Your task to perform on an android device: turn off data saver in the chrome app Image 0: 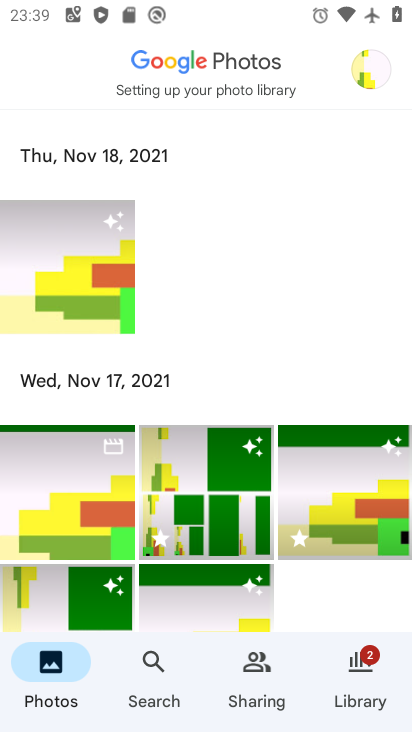
Step 0: press back button
Your task to perform on an android device: turn off data saver in the chrome app Image 1: 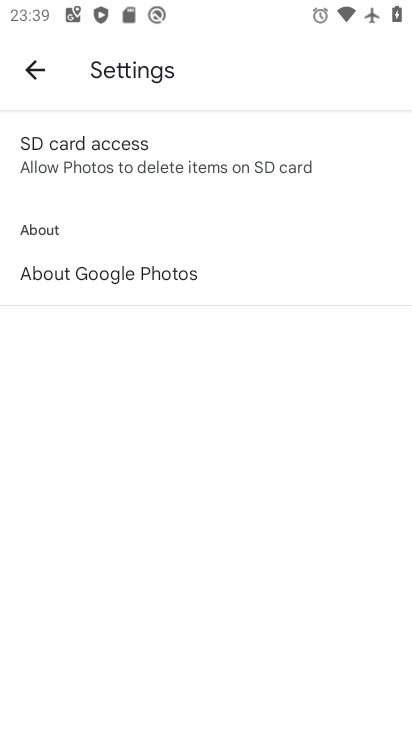
Step 1: press home button
Your task to perform on an android device: turn off data saver in the chrome app Image 2: 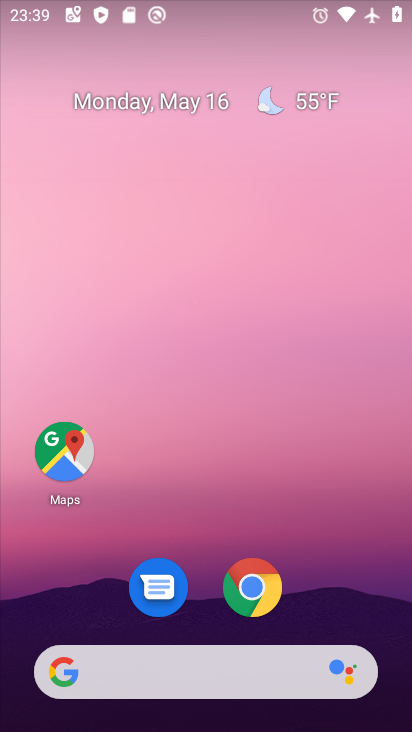
Step 2: drag from (322, 570) to (267, 64)
Your task to perform on an android device: turn off data saver in the chrome app Image 3: 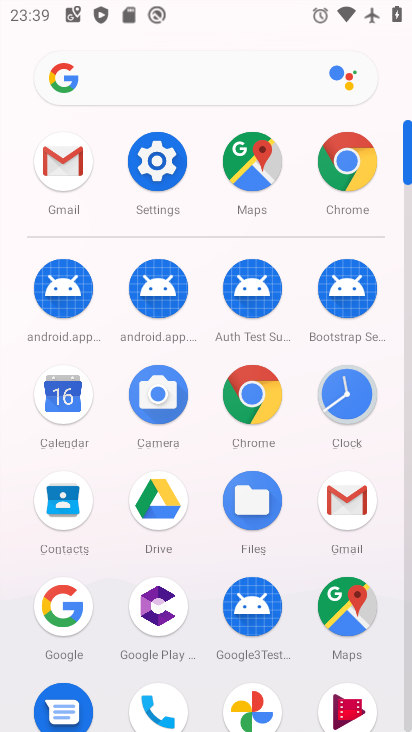
Step 3: drag from (5, 550) to (35, 240)
Your task to perform on an android device: turn off data saver in the chrome app Image 4: 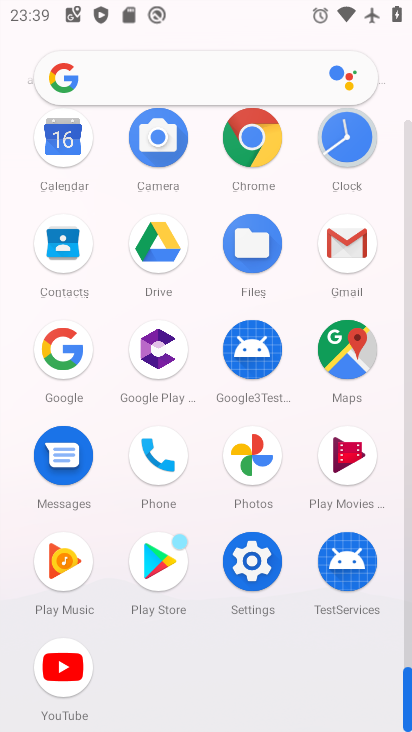
Step 4: click (249, 134)
Your task to perform on an android device: turn off data saver in the chrome app Image 5: 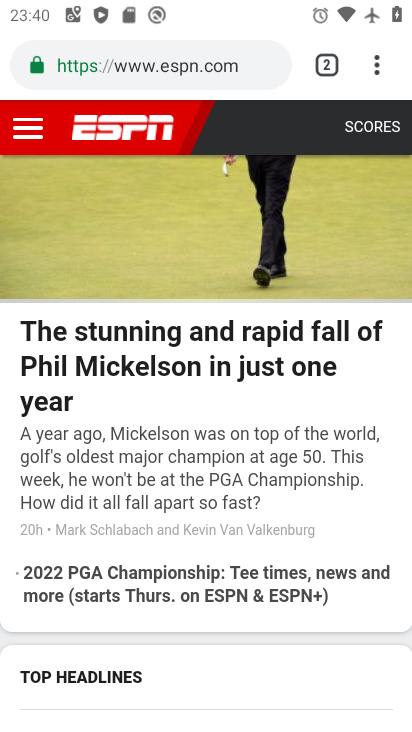
Step 5: drag from (373, 60) to (159, 624)
Your task to perform on an android device: turn off data saver in the chrome app Image 6: 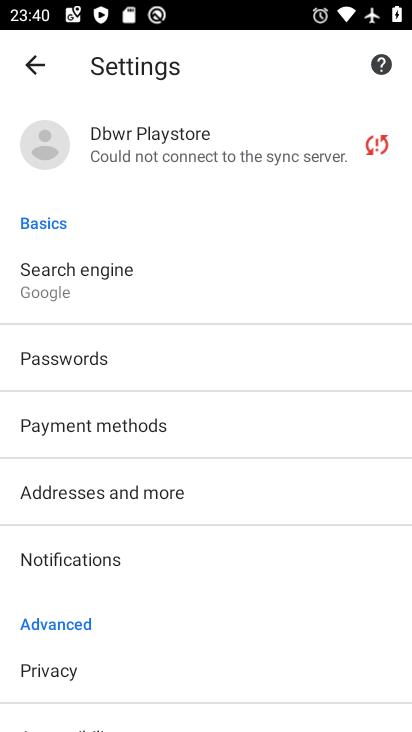
Step 6: drag from (201, 562) to (191, 190)
Your task to perform on an android device: turn off data saver in the chrome app Image 7: 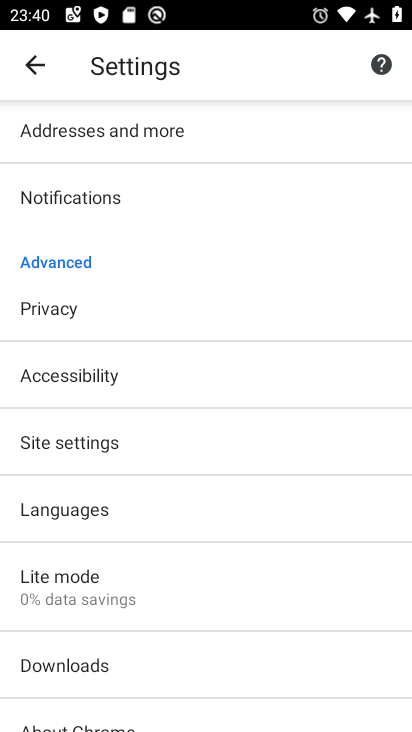
Step 7: click (113, 573)
Your task to perform on an android device: turn off data saver in the chrome app Image 8: 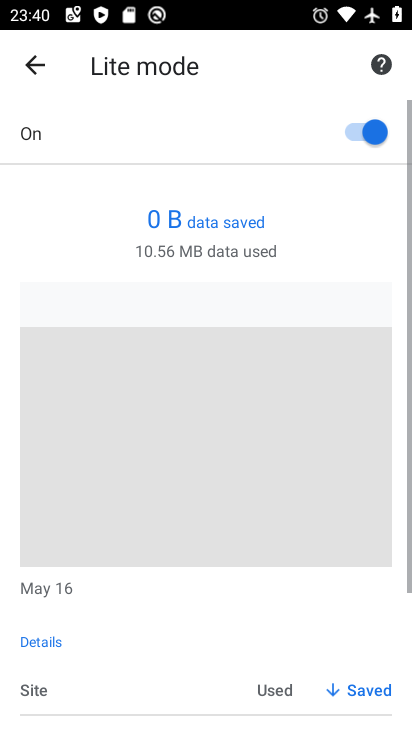
Step 8: click (364, 125)
Your task to perform on an android device: turn off data saver in the chrome app Image 9: 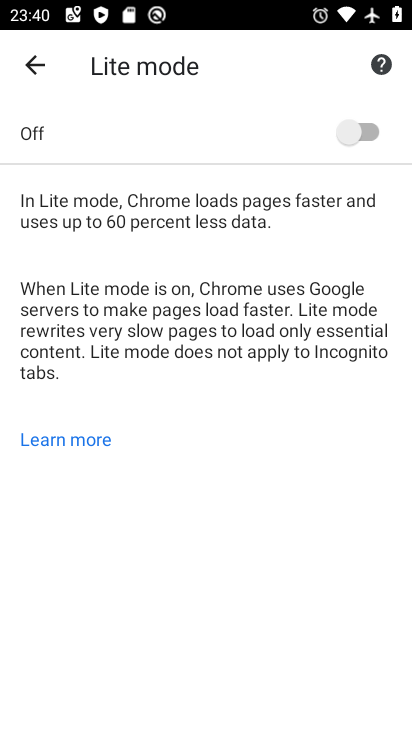
Step 9: task complete